Your task to perform on an android device: Search for sushi restaurants on Maps Image 0: 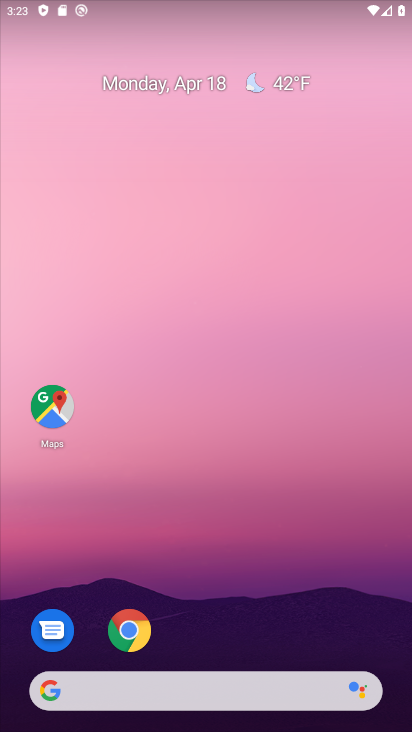
Step 0: click (45, 399)
Your task to perform on an android device: Search for sushi restaurants on Maps Image 1: 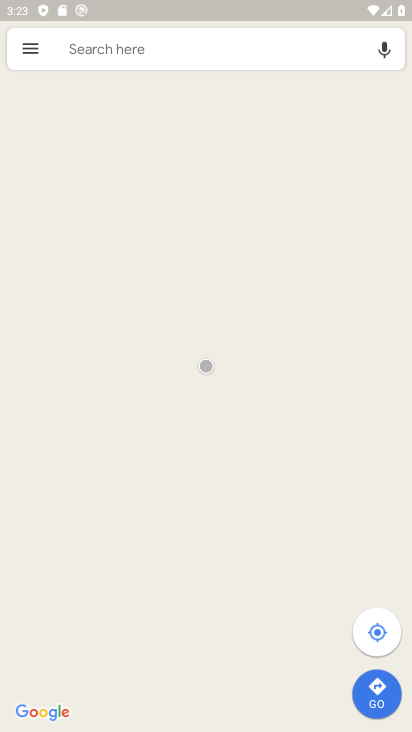
Step 1: click (176, 46)
Your task to perform on an android device: Search for sushi restaurants on Maps Image 2: 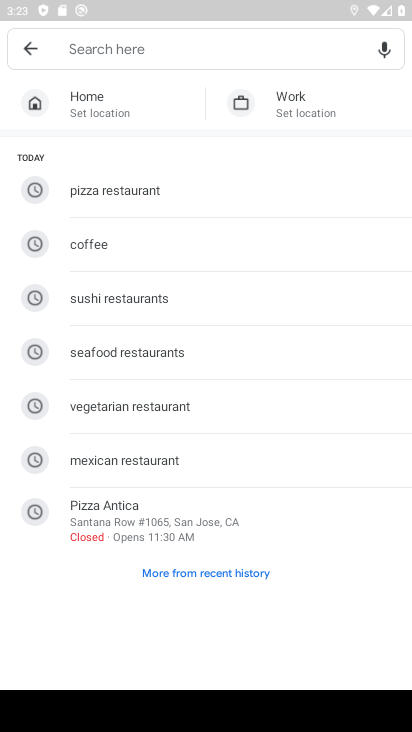
Step 2: click (162, 292)
Your task to perform on an android device: Search for sushi restaurants on Maps Image 3: 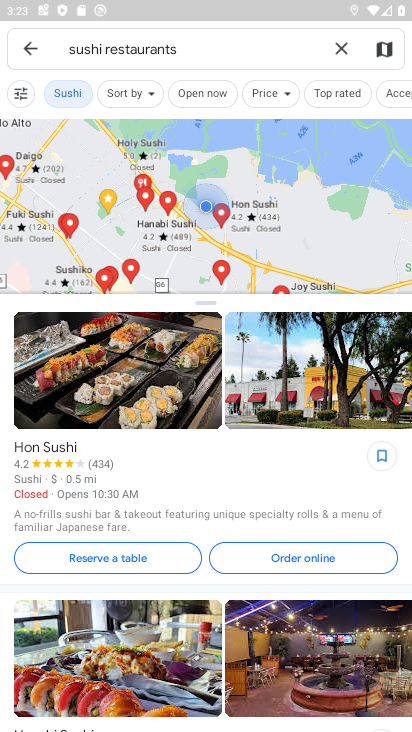
Step 3: task complete